Your task to perform on an android device: Do I have any events this weekend? Image 0: 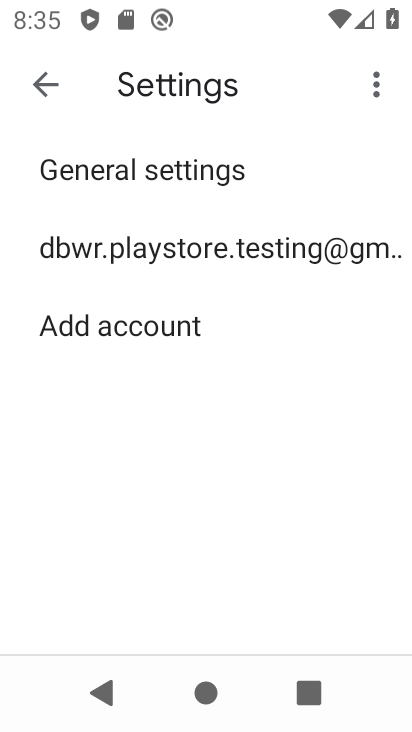
Step 0: press home button
Your task to perform on an android device: Do I have any events this weekend? Image 1: 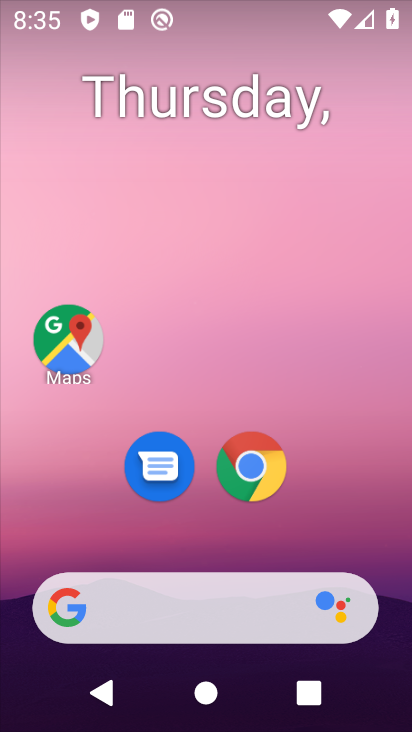
Step 1: drag from (202, 600) to (347, 208)
Your task to perform on an android device: Do I have any events this weekend? Image 2: 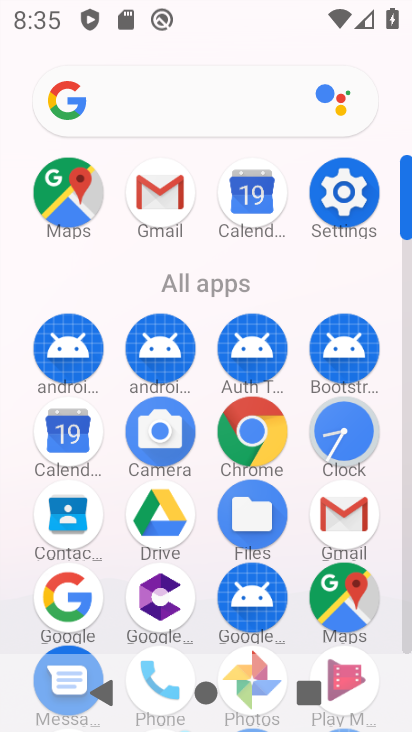
Step 2: click (162, 208)
Your task to perform on an android device: Do I have any events this weekend? Image 3: 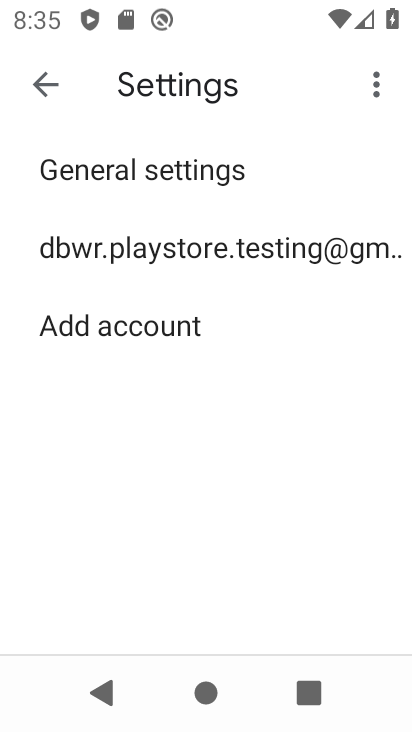
Step 3: press home button
Your task to perform on an android device: Do I have any events this weekend? Image 4: 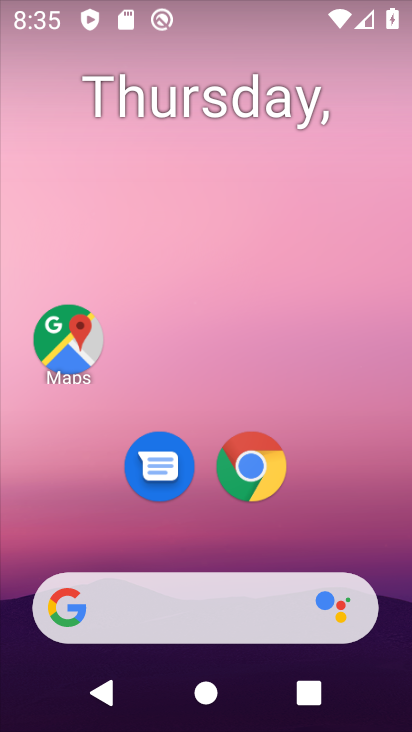
Step 4: drag from (171, 609) to (302, 203)
Your task to perform on an android device: Do I have any events this weekend? Image 5: 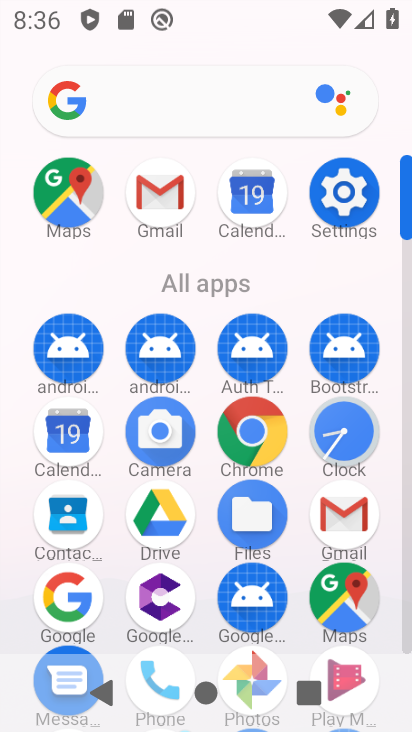
Step 5: click (70, 443)
Your task to perform on an android device: Do I have any events this weekend? Image 6: 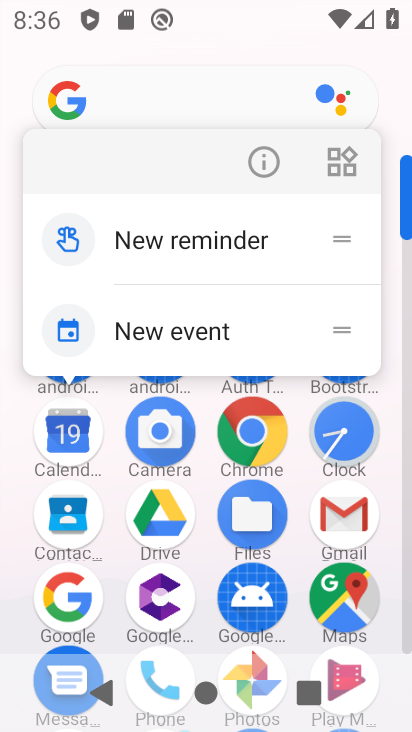
Step 6: click (75, 438)
Your task to perform on an android device: Do I have any events this weekend? Image 7: 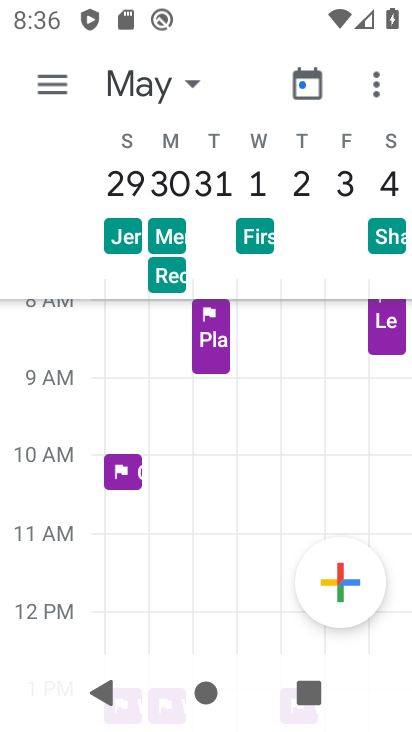
Step 7: click (145, 91)
Your task to perform on an android device: Do I have any events this weekend? Image 8: 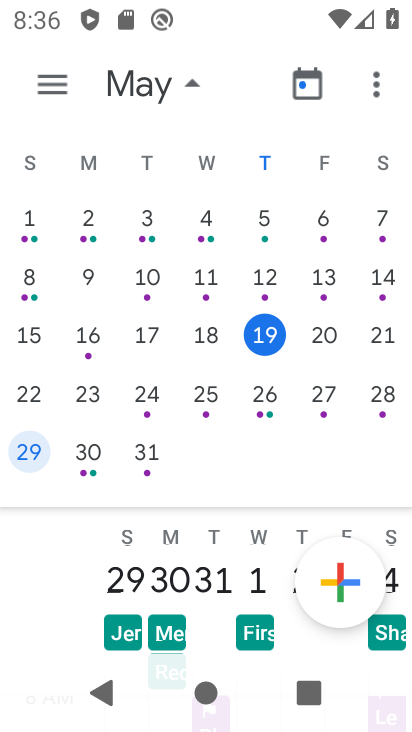
Step 8: click (382, 339)
Your task to perform on an android device: Do I have any events this weekend? Image 9: 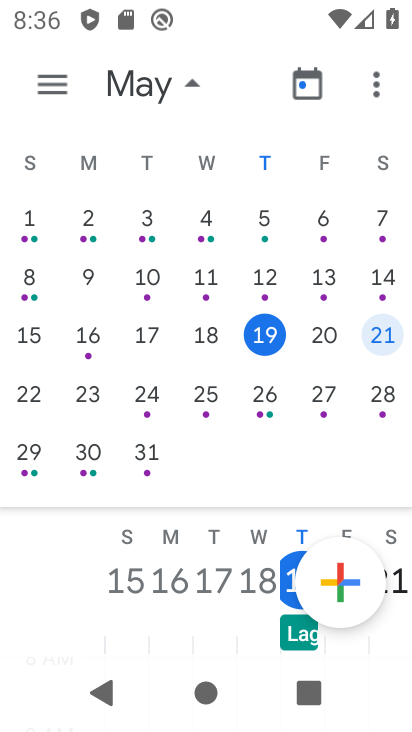
Step 9: click (59, 75)
Your task to perform on an android device: Do I have any events this weekend? Image 10: 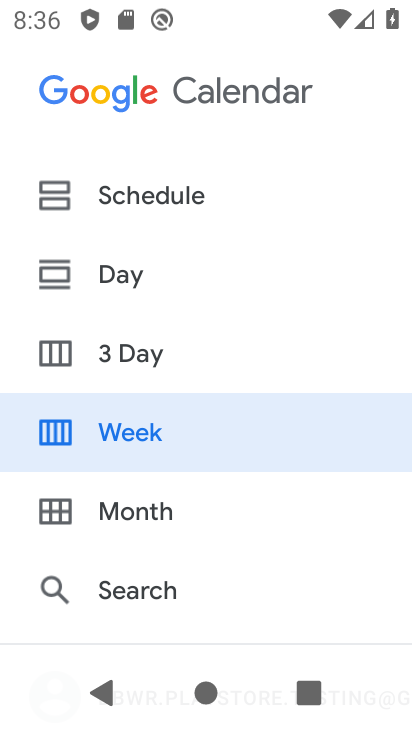
Step 10: click (132, 275)
Your task to perform on an android device: Do I have any events this weekend? Image 11: 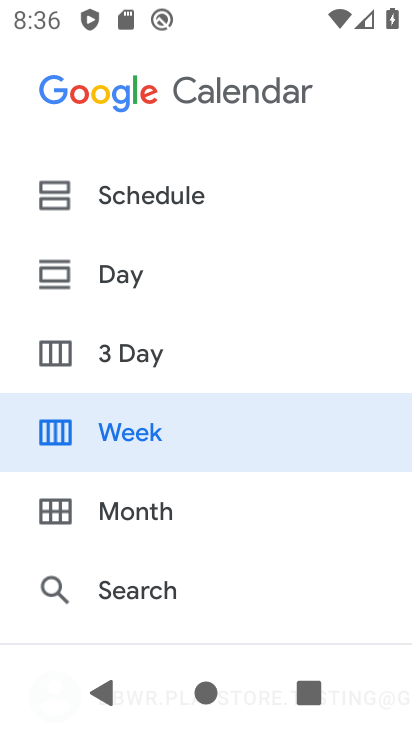
Step 11: click (108, 273)
Your task to perform on an android device: Do I have any events this weekend? Image 12: 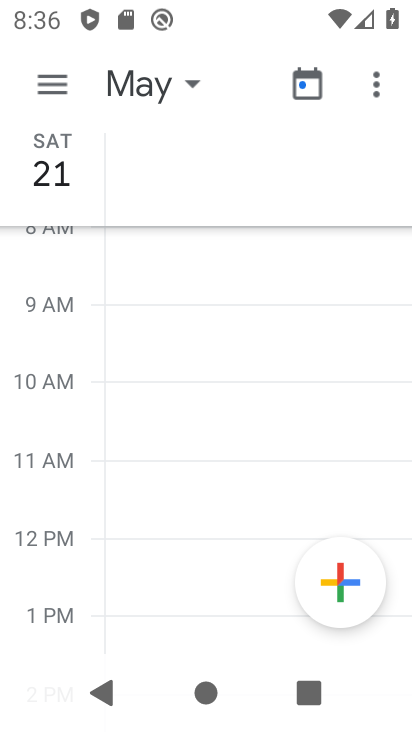
Step 12: click (62, 75)
Your task to perform on an android device: Do I have any events this weekend? Image 13: 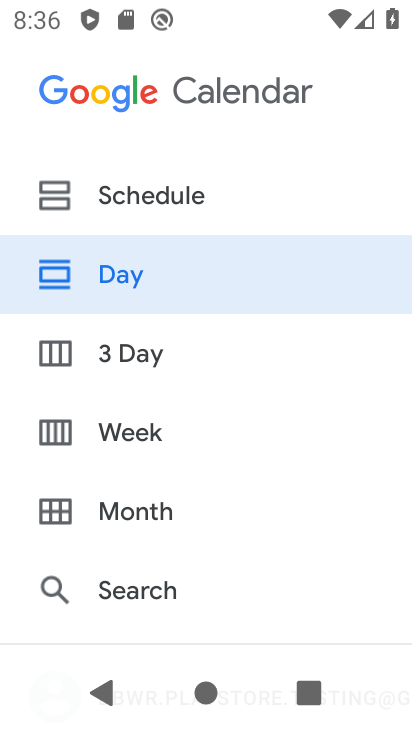
Step 13: click (162, 194)
Your task to perform on an android device: Do I have any events this weekend? Image 14: 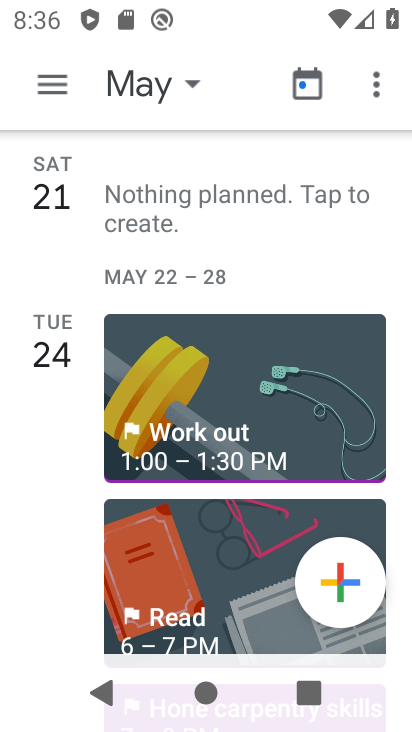
Step 14: task complete